Your task to perform on an android device: turn on data saver in the chrome app Image 0: 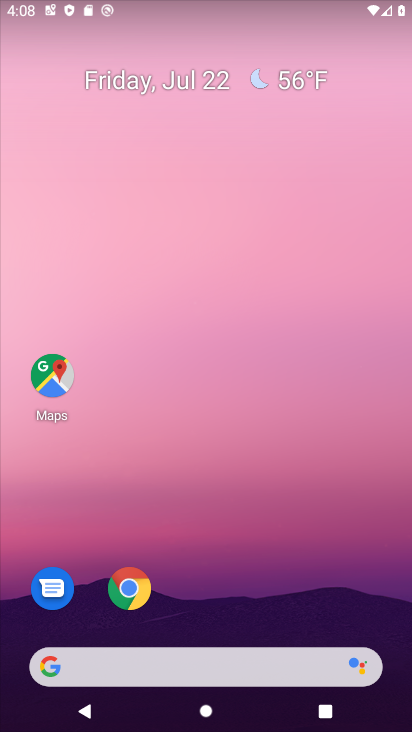
Step 0: click (157, 621)
Your task to perform on an android device: turn on data saver in the chrome app Image 1: 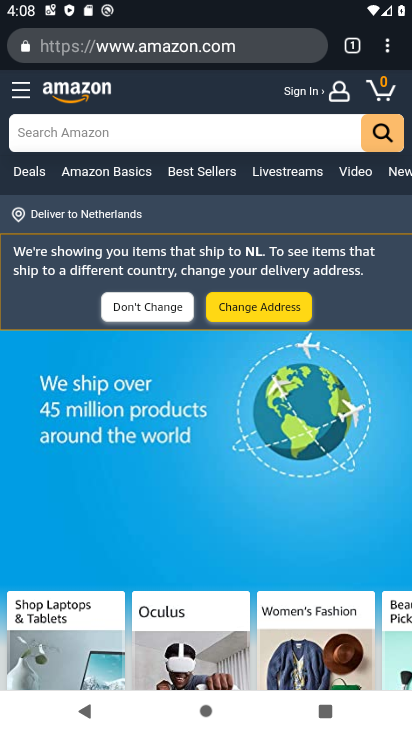
Step 1: click (392, 50)
Your task to perform on an android device: turn on data saver in the chrome app Image 2: 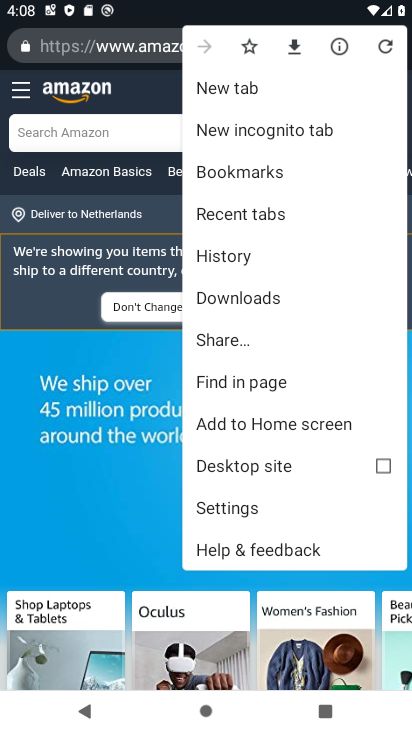
Step 2: click (278, 508)
Your task to perform on an android device: turn on data saver in the chrome app Image 3: 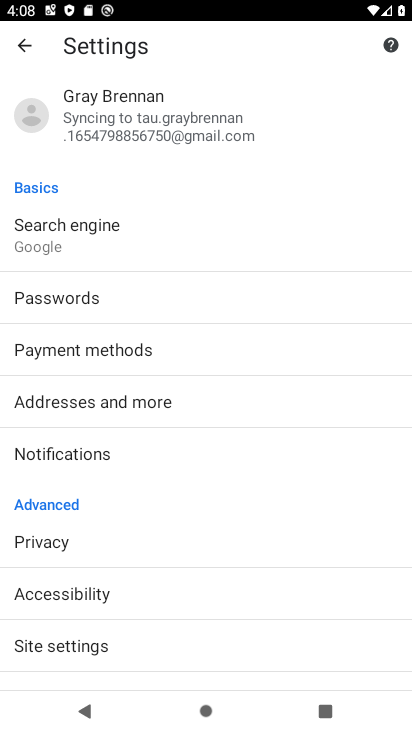
Step 3: drag from (125, 608) to (150, 294)
Your task to perform on an android device: turn on data saver in the chrome app Image 4: 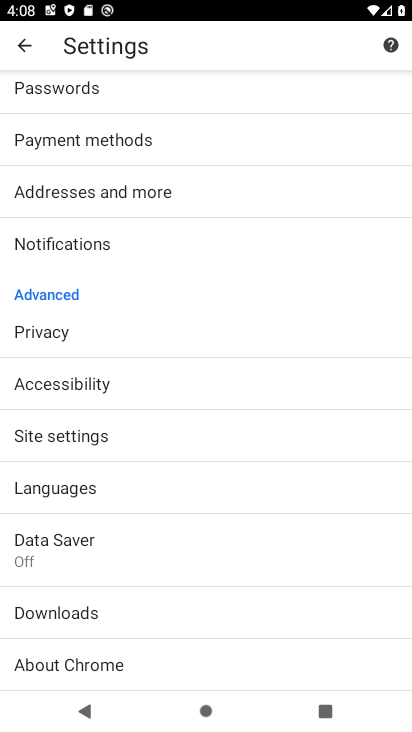
Step 4: click (124, 545)
Your task to perform on an android device: turn on data saver in the chrome app Image 5: 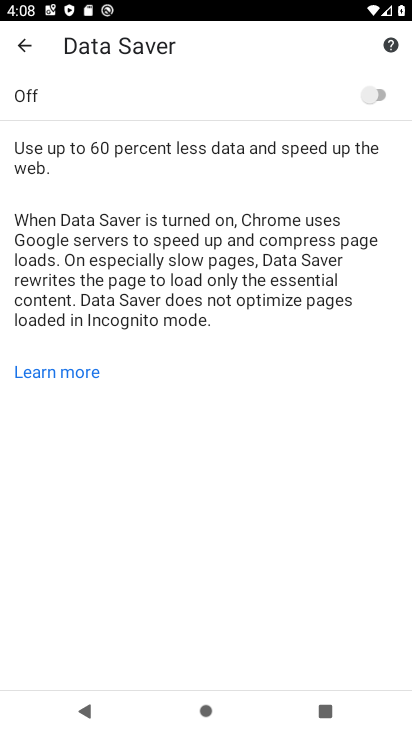
Step 5: click (384, 92)
Your task to perform on an android device: turn on data saver in the chrome app Image 6: 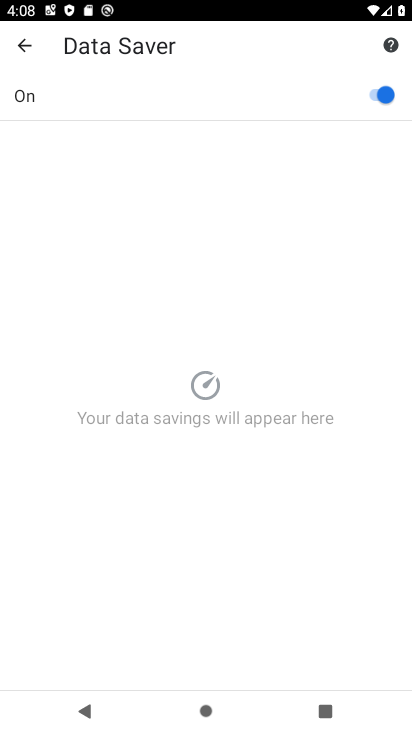
Step 6: task complete